Your task to perform on an android device: Open the Play Movies app and select the watchlist tab. Image 0: 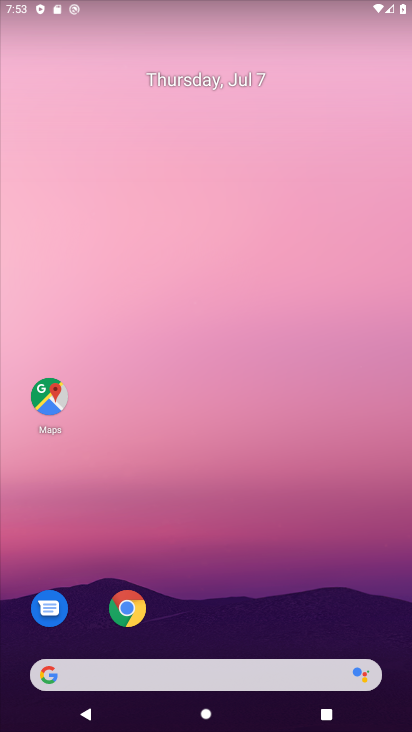
Step 0: drag from (172, 627) to (174, 134)
Your task to perform on an android device: Open the Play Movies app and select the watchlist tab. Image 1: 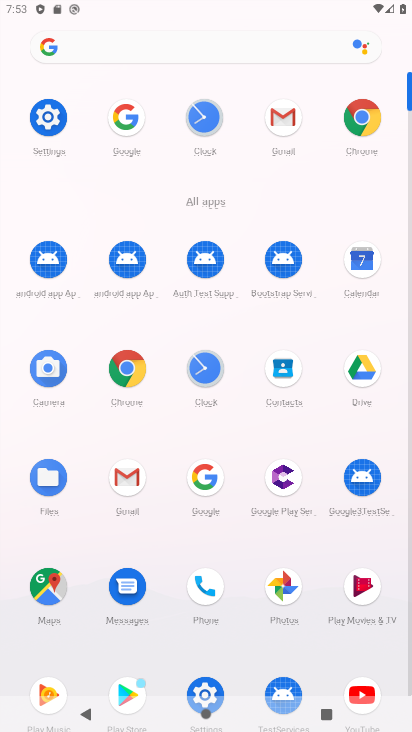
Step 1: click (359, 607)
Your task to perform on an android device: Open the Play Movies app and select the watchlist tab. Image 2: 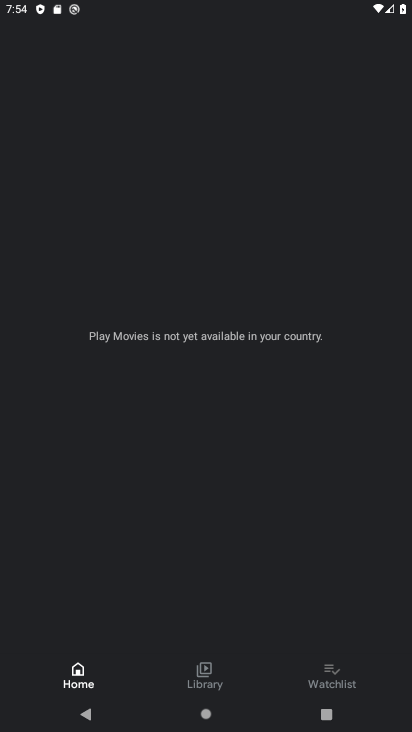
Step 2: click (322, 656)
Your task to perform on an android device: Open the Play Movies app and select the watchlist tab. Image 3: 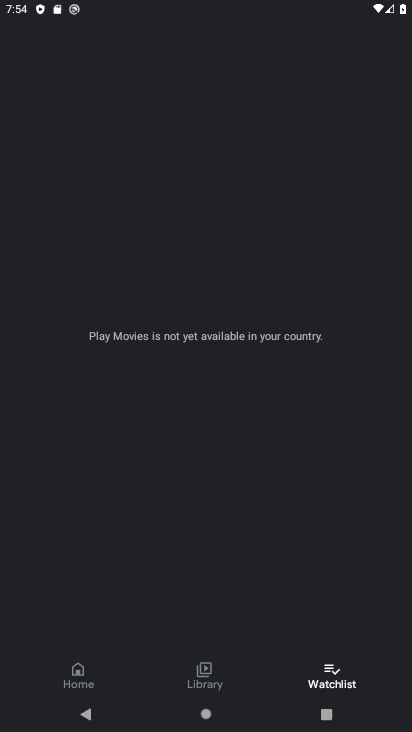
Step 3: task complete